Your task to perform on an android device: What's on my calendar today? Image 0: 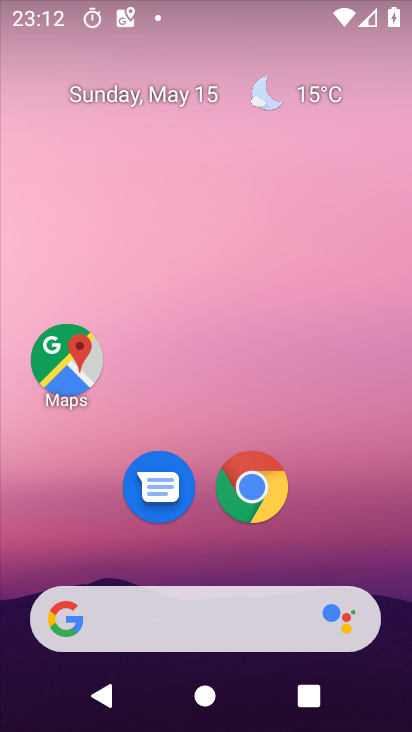
Step 0: drag from (402, 642) to (387, 326)
Your task to perform on an android device: What's on my calendar today? Image 1: 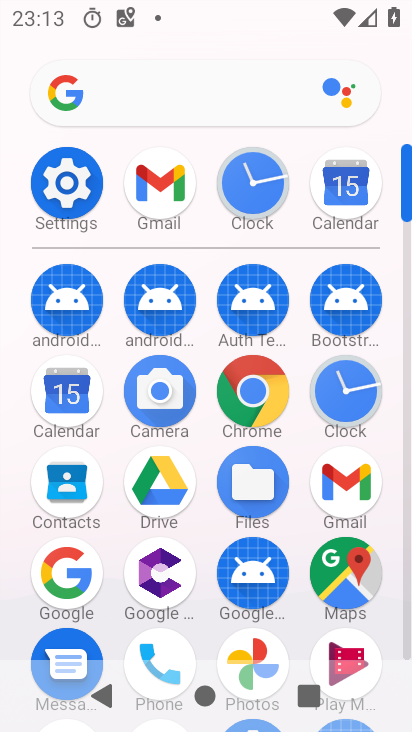
Step 1: click (61, 400)
Your task to perform on an android device: What's on my calendar today? Image 2: 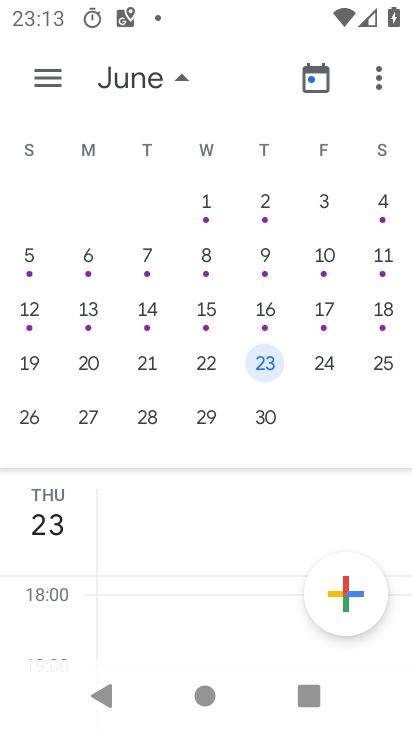
Step 2: click (180, 76)
Your task to perform on an android device: What's on my calendar today? Image 3: 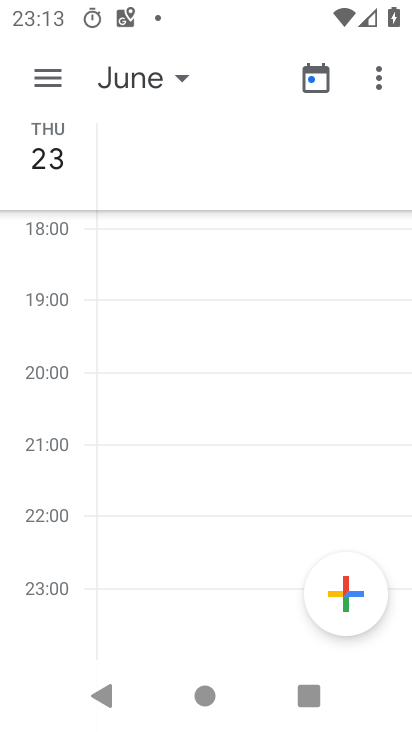
Step 3: click (180, 77)
Your task to perform on an android device: What's on my calendar today? Image 4: 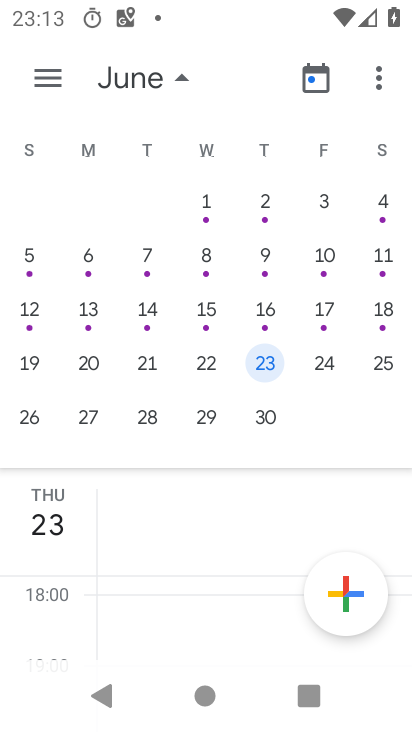
Step 4: drag from (21, 201) to (352, 199)
Your task to perform on an android device: What's on my calendar today? Image 5: 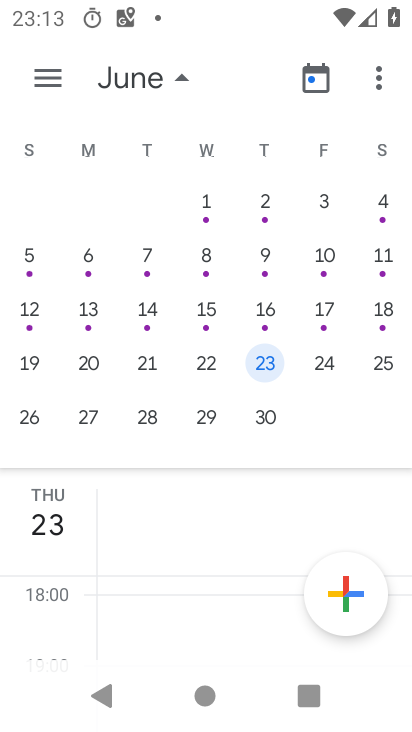
Step 5: drag from (93, 326) to (393, 293)
Your task to perform on an android device: What's on my calendar today? Image 6: 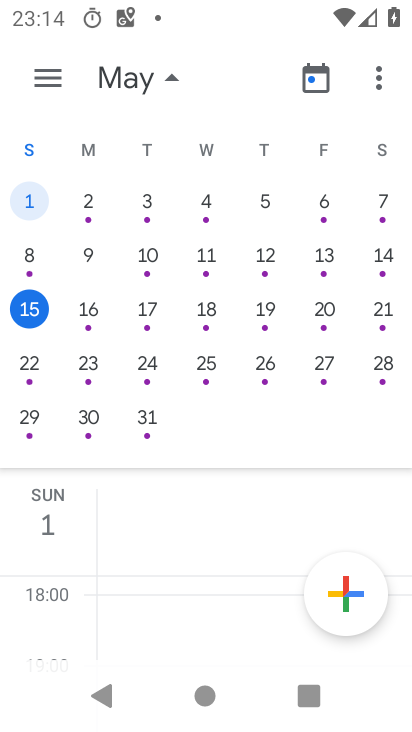
Step 6: click (31, 303)
Your task to perform on an android device: What's on my calendar today? Image 7: 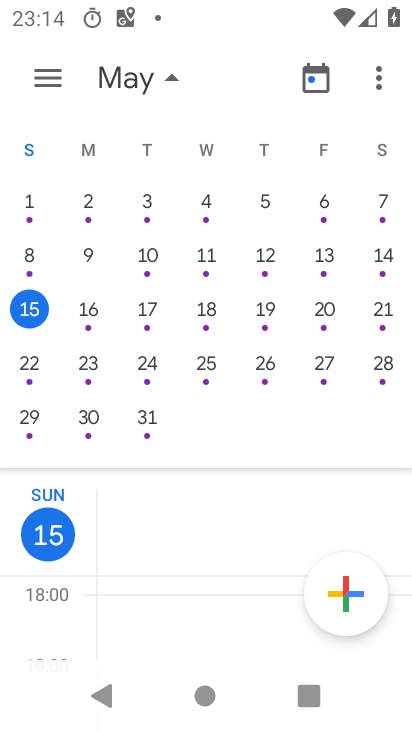
Step 7: task complete